Your task to perform on an android device: What's the weather? Image 0: 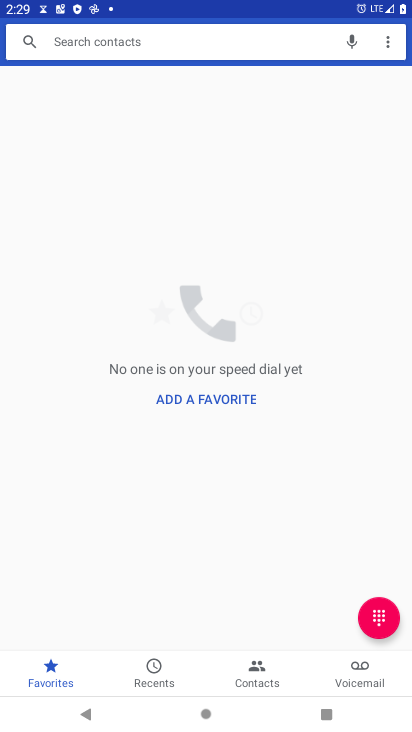
Step 0: press home button
Your task to perform on an android device: What's the weather? Image 1: 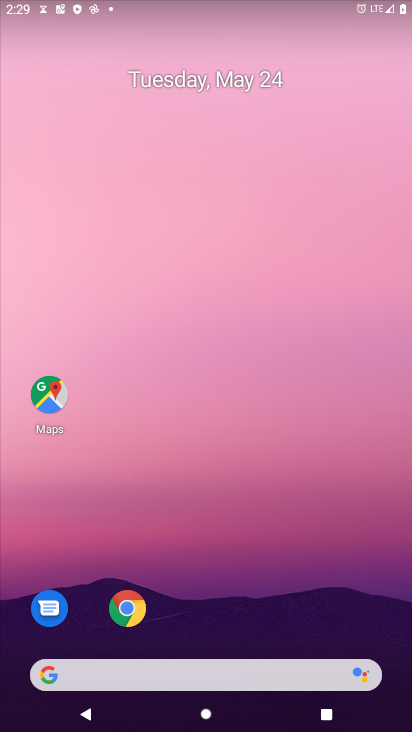
Step 1: click (216, 700)
Your task to perform on an android device: What's the weather? Image 2: 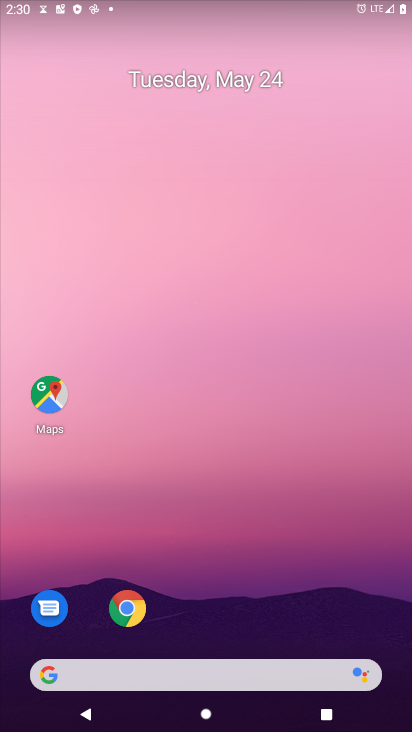
Step 2: click (198, 673)
Your task to perform on an android device: What's the weather? Image 3: 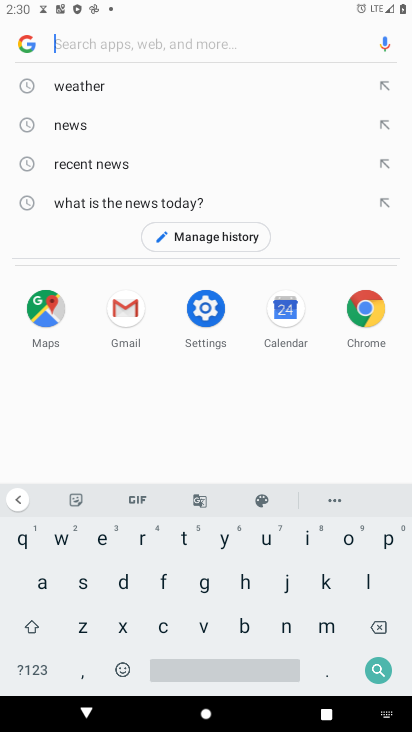
Step 3: click (108, 88)
Your task to perform on an android device: What's the weather? Image 4: 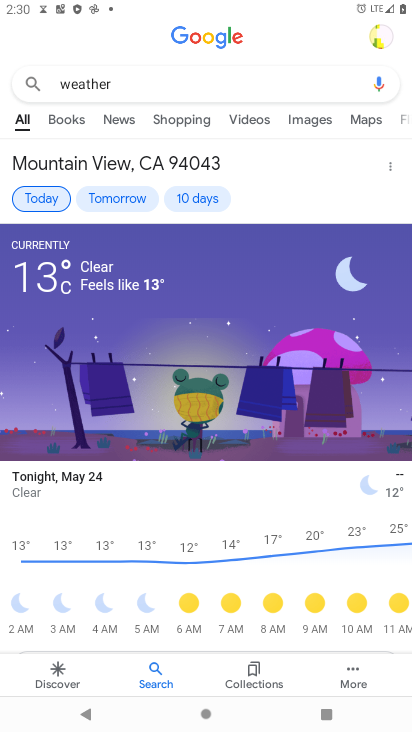
Step 4: task complete